Your task to perform on an android device: set an alarm Image 0: 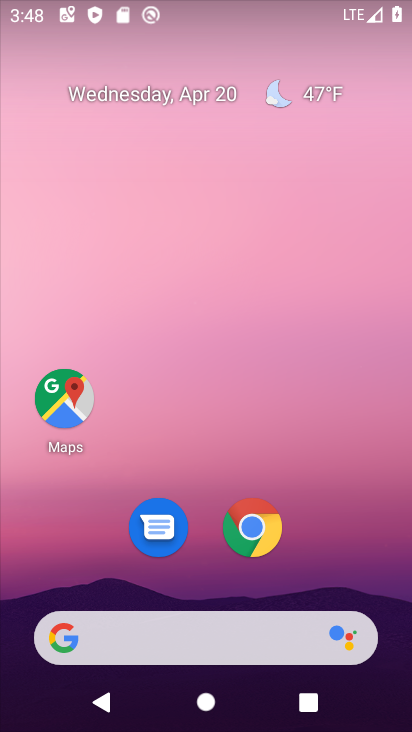
Step 0: drag from (314, 585) to (333, 139)
Your task to perform on an android device: set an alarm Image 1: 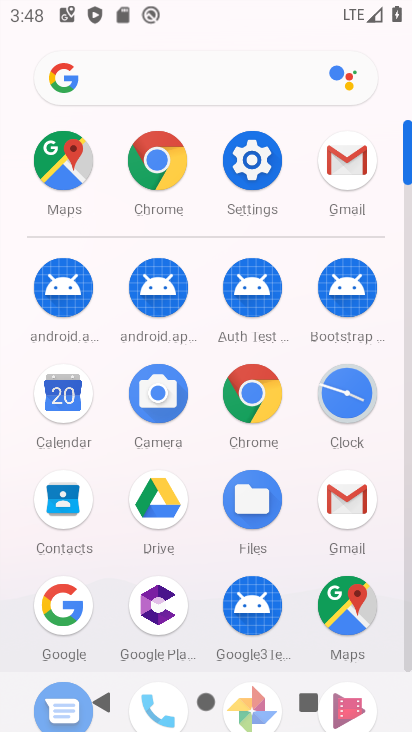
Step 1: click (350, 405)
Your task to perform on an android device: set an alarm Image 2: 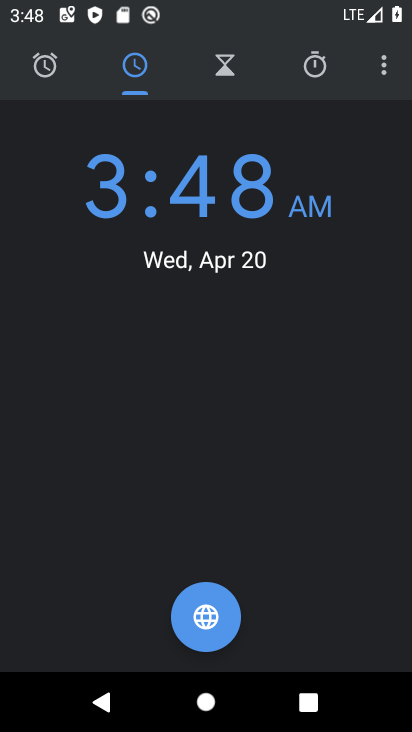
Step 2: click (54, 73)
Your task to perform on an android device: set an alarm Image 3: 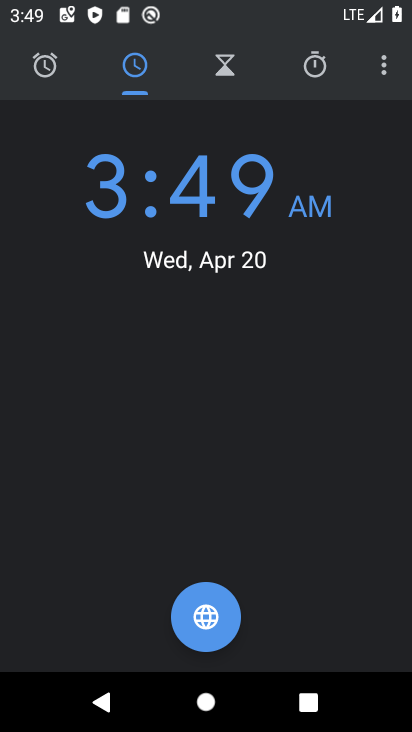
Step 3: click (37, 67)
Your task to perform on an android device: set an alarm Image 4: 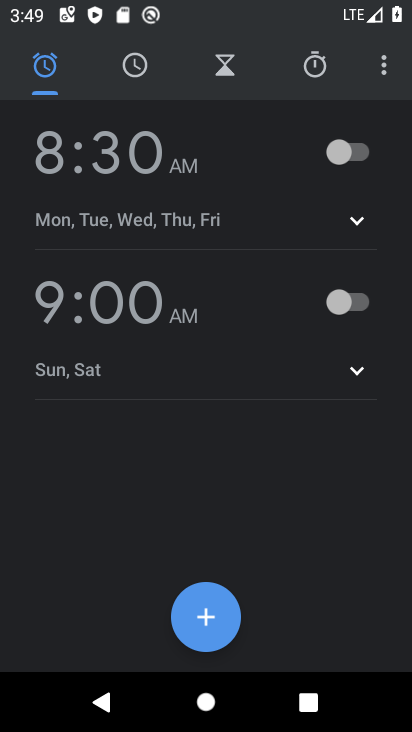
Step 4: click (198, 624)
Your task to perform on an android device: set an alarm Image 5: 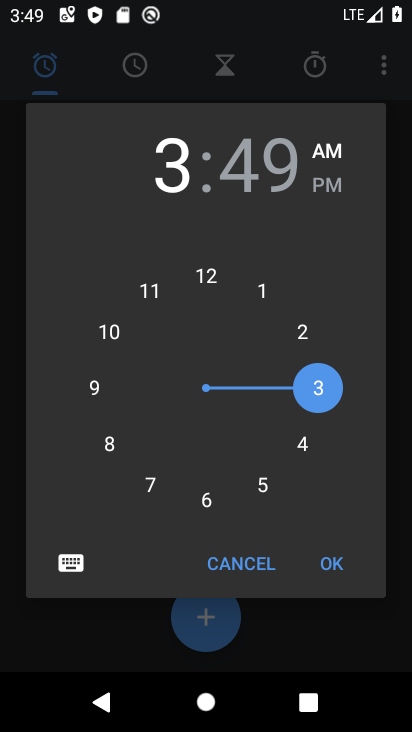
Step 5: click (327, 563)
Your task to perform on an android device: set an alarm Image 6: 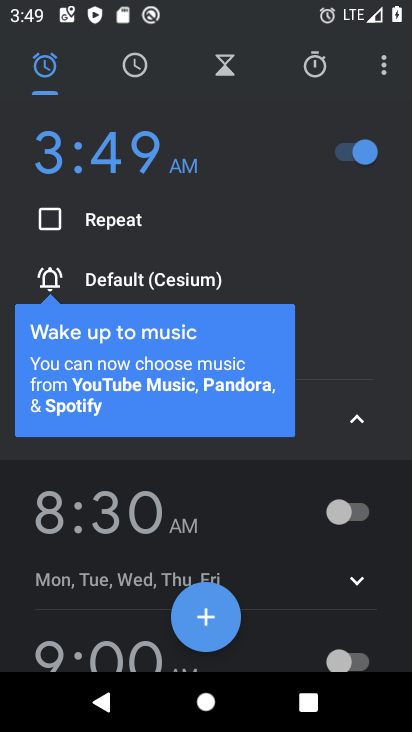
Step 6: task complete